Your task to perform on an android device: see tabs open on other devices in the chrome app Image 0: 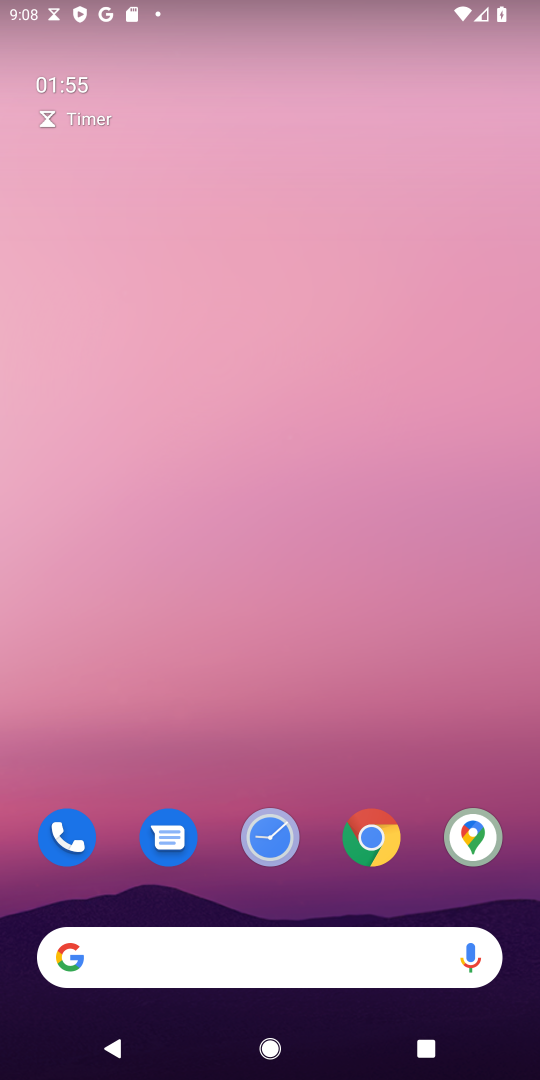
Step 0: click (373, 837)
Your task to perform on an android device: see tabs open on other devices in the chrome app Image 1: 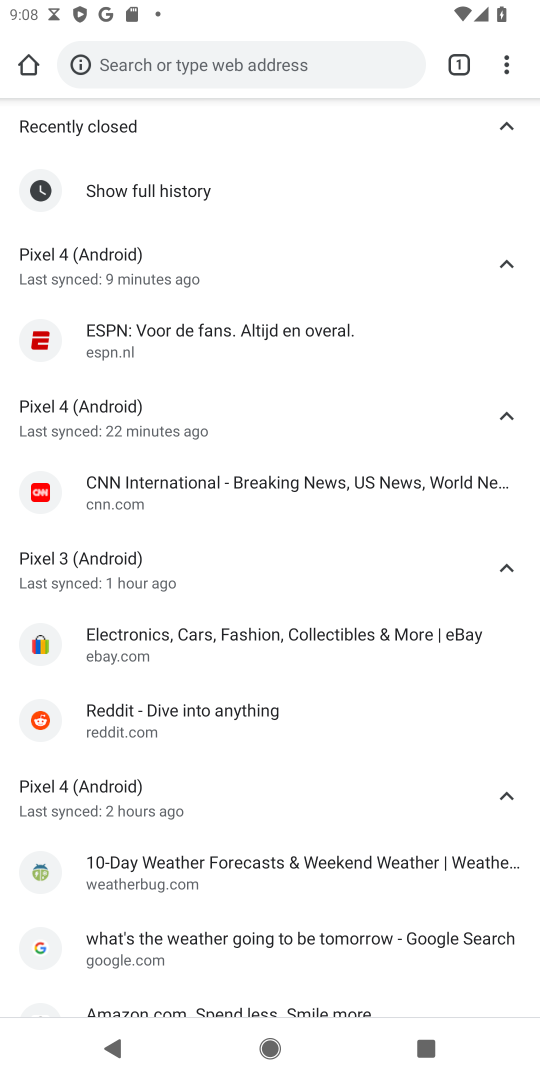
Step 1: task complete